Your task to perform on an android device: toggle airplane mode Image 0: 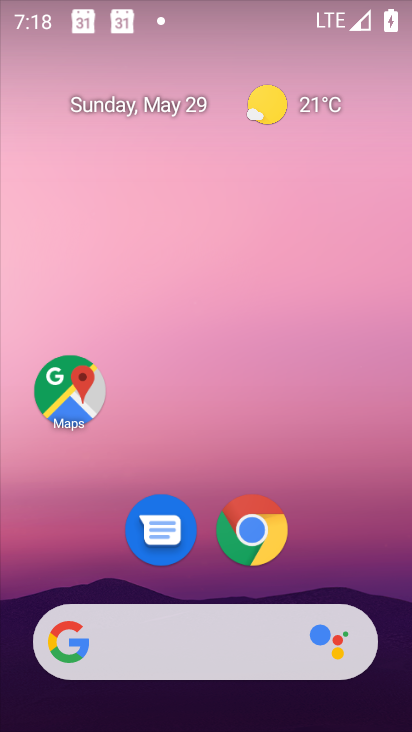
Step 0: drag from (283, 682) to (185, 157)
Your task to perform on an android device: toggle airplane mode Image 1: 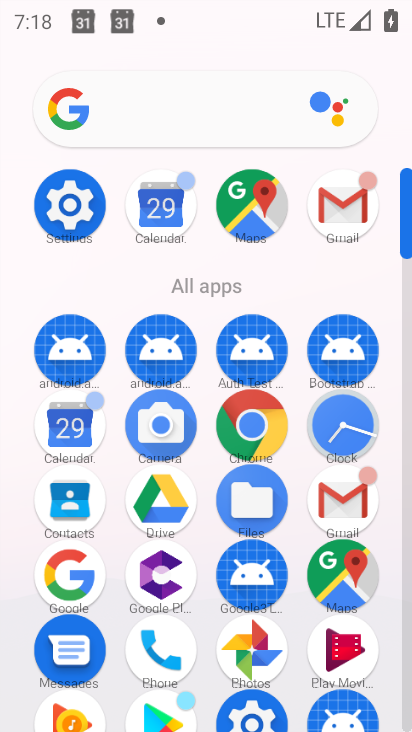
Step 1: click (64, 193)
Your task to perform on an android device: toggle airplane mode Image 2: 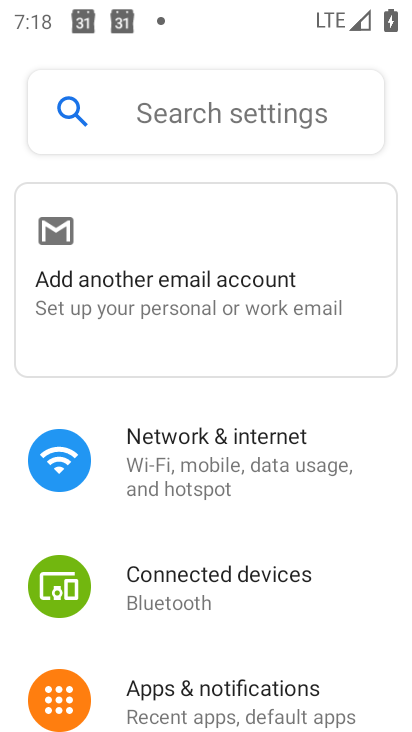
Step 2: click (217, 462)
Your task to perform on an android device: toggle airplane mode Image 3: 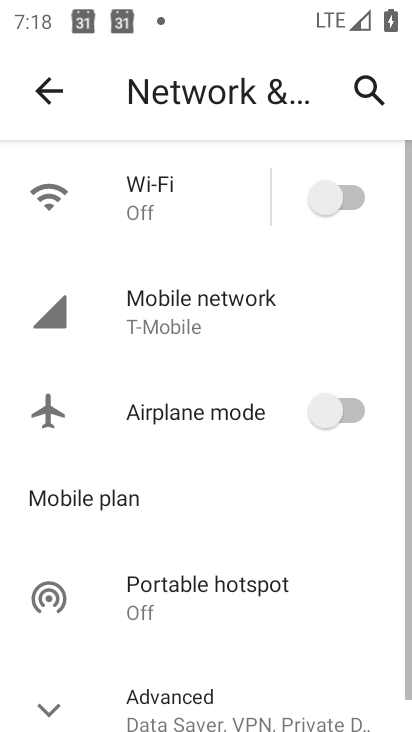
Step 3: click (206, 420)
Your task to perform on an android device: toggle airplane mode Image 4: 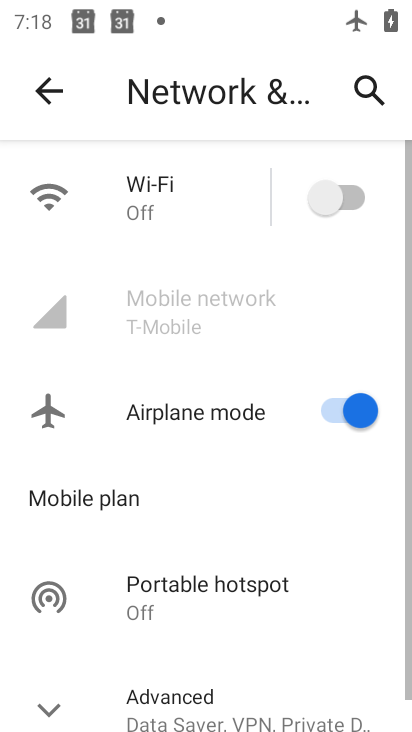
Step 4: click (206, 420)
Your task to perform on an android device: toggle airplane mode Image 5: 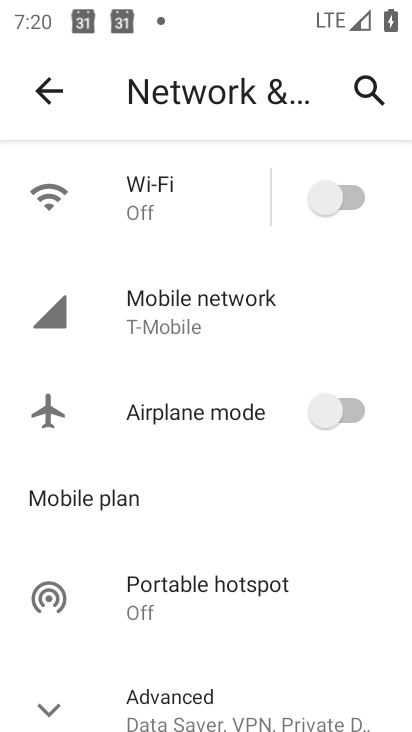
Step 5: task complete